Your task to perform on an android device: What's the weather going to be tomorrow? Image 0: 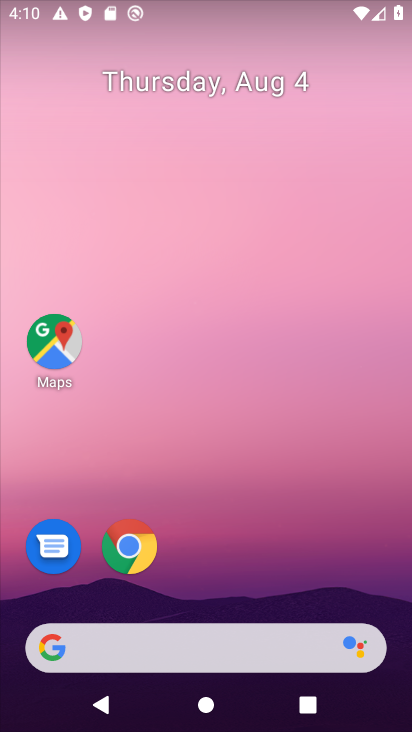
Step 0: click (156, 648)
Your task to perform on an android device: What's the weather going to be tomorrow? Image 1: 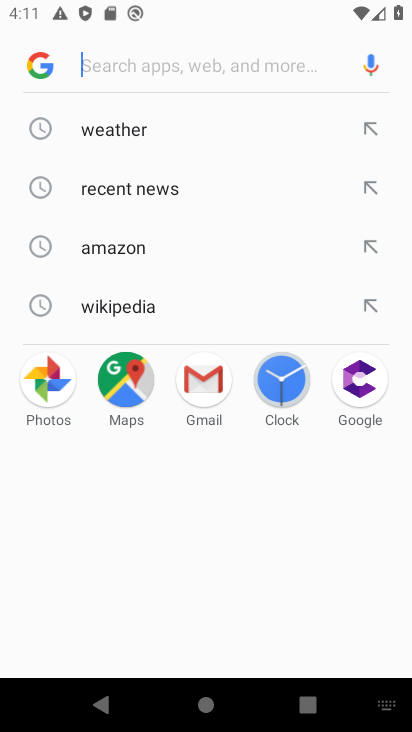
Step 1: click (120, 137)
Your task to perform on an android device: What's the weather going to be tomorrow? Image 2: 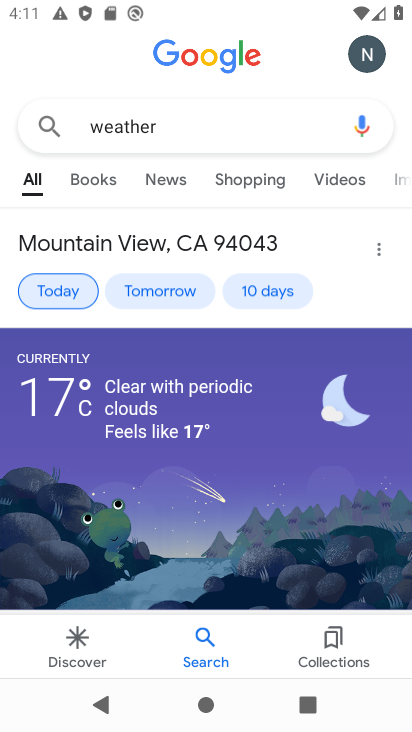
Step 2: click (130, 293)
Your task to perform on an android device: What's the weather going to be tomorrow? Image 3: 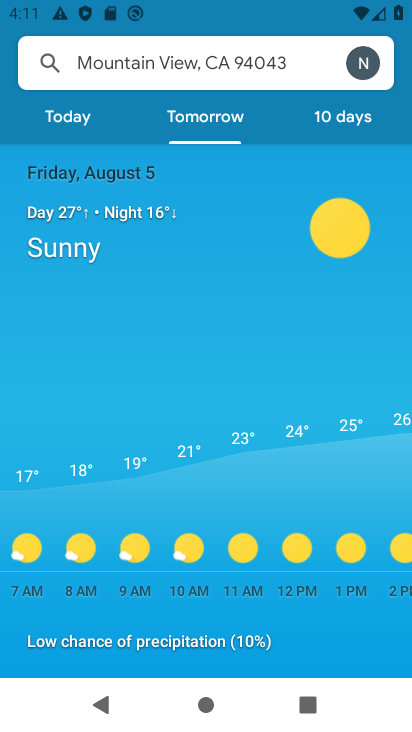
Step 3: task complete